Your task to perform on an android device: toggle pop-ups in chrome Image 0: 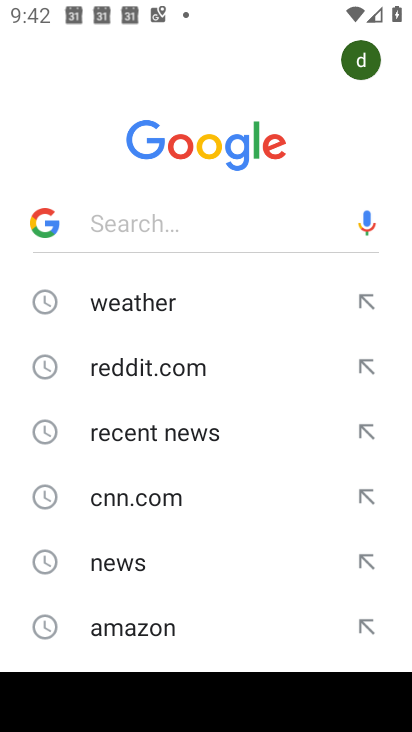
Step 0: press home button
Your task to perform on an android device: toggle pop-ups in chrome Image 1: 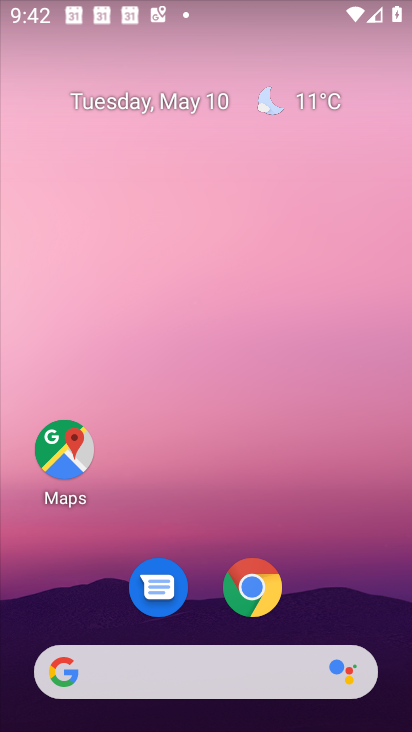
Step 1: drag from (350, 568) to (299, 108)
Your task to perform on an android device: toggle pop-ups in chrome Image 2: 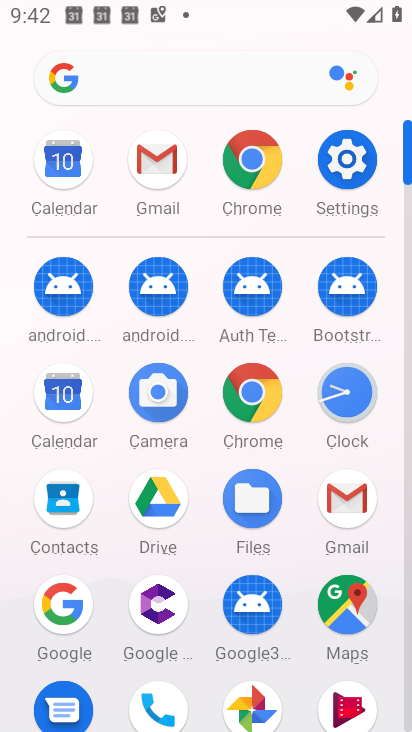
Step 2: click (264, 384)
Your task to perform on an android device: toggle pop-ups in chrome Image 3: 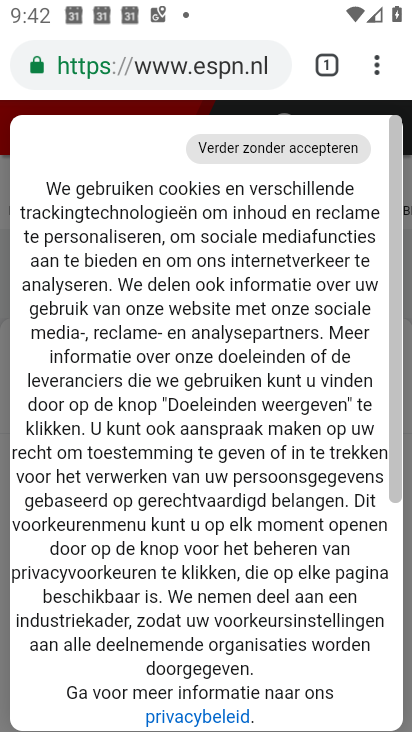
Step 3: drag from (383, 64) to (190, 642)
Your task to perform on an android device: toggle pop-ups in chrome Image 4: 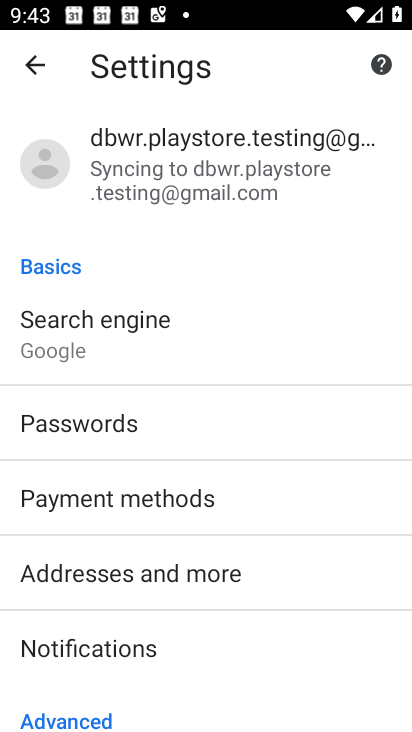
Step 4: drag from (273, 646) to (281, 314)
Your task to perform on an android device: toggle pop-ups in chrome Image 5: 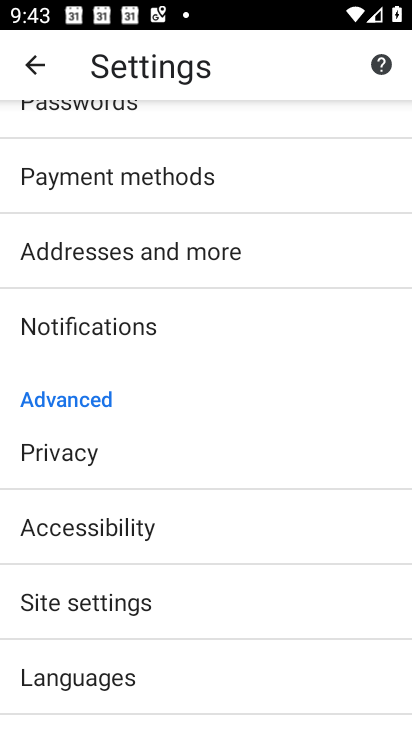
Step 5: click (216, 614)
Your task to perform on an android device: toggle pop-ups in chrome Image 6: 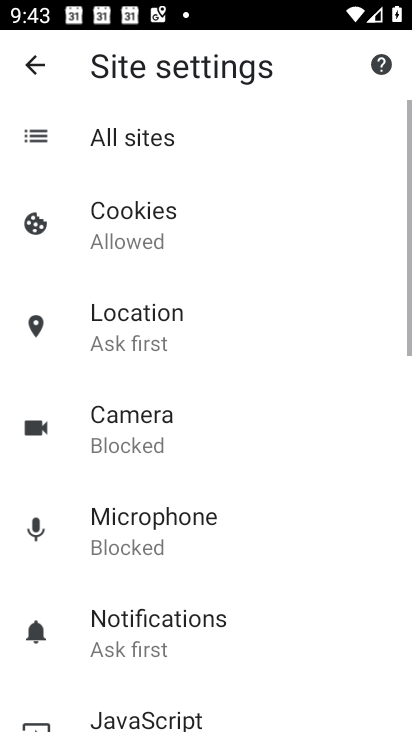
Step 6: drag from (264, 659) to (265, 358)
Your task to perform on an android device: toggle pop-ups in chrome Image 7: 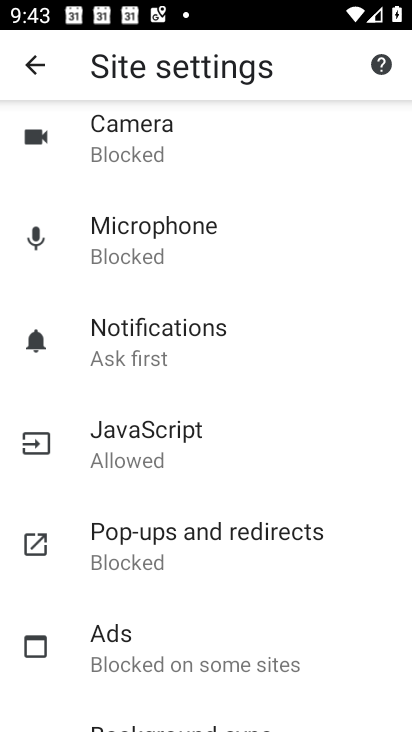
Step 7: click (265, 540)
Your task to perform on an android device: toggle pop-ups in chrome Image 8: 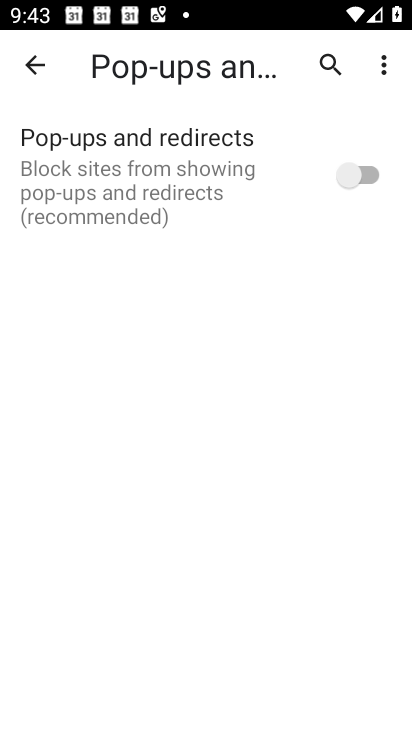
Step 8: click (364, 176)
Your task to perform on an android device: toggle pop-ups in chrome Image 9: 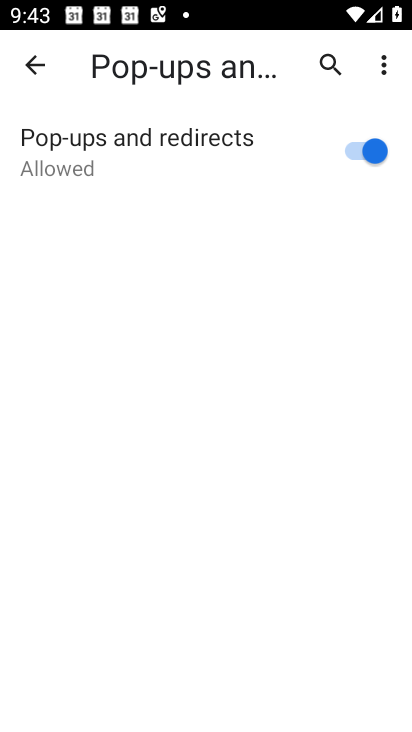
Step 9: task complete